Your task to perform on an android device: Go to notification settings Image 0: 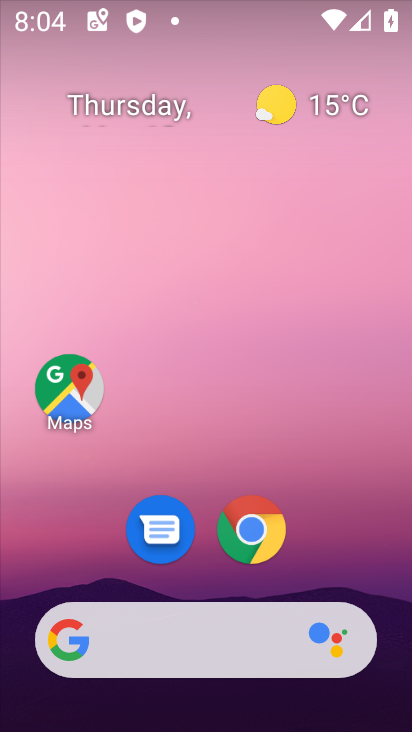
Step 0: drag from (223, 516) to (223, 68)
Your task to perform on an android device: Go to notification settings Image 1: 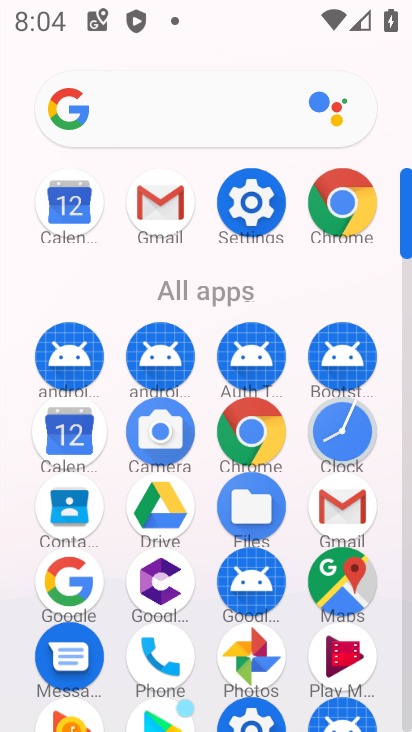
Step 1: click (251, 214)
Your task to perform on an android device: Go to notification settings Image 2: 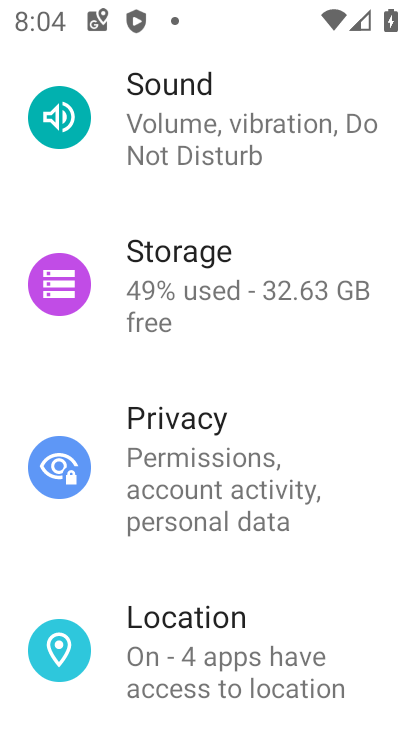
Step 2: drag from (258, 152) to (269, 724)
Your task to perform on an android device: Go to notification settings Image 3: 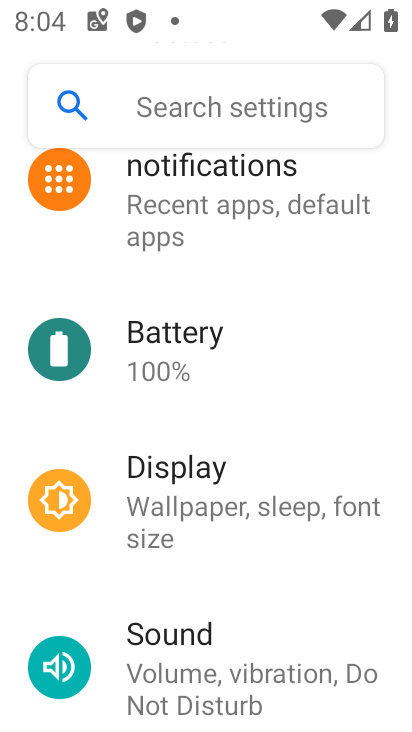
Step 3: click (315, 190)
Your task to perform on an android device: Go to notification settings Image 4: 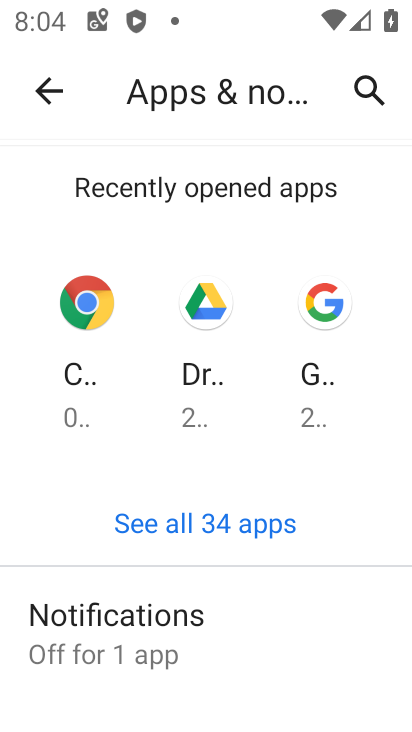
Step 4: task complete